Your task to perform on an android device: Google the capital of Canada Image 0: 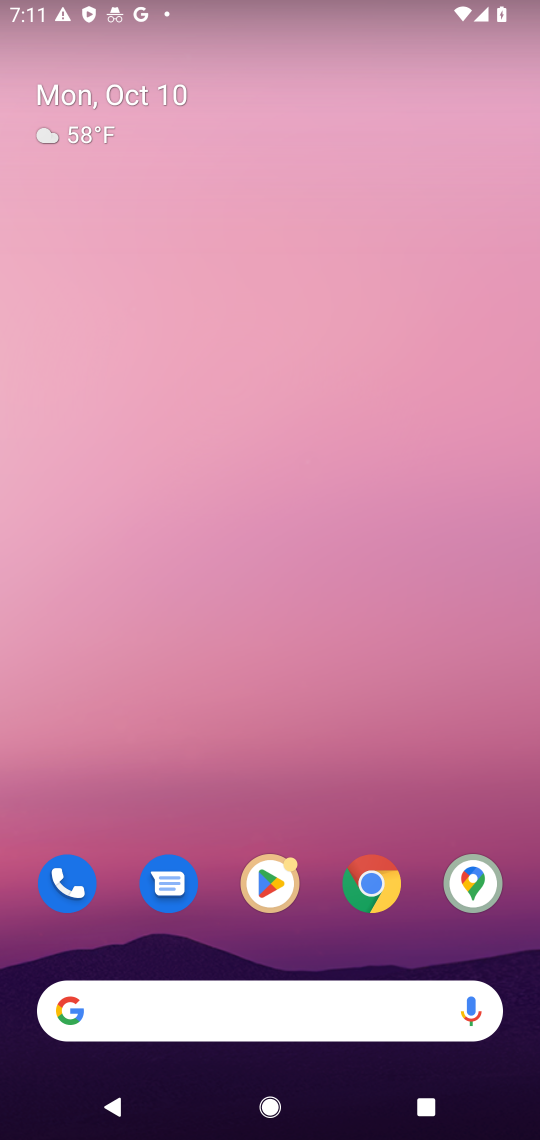
Step 0: drag from (355, 1012) to (402, 411)
Your task to perform on an android device: Google the capital of Canada Image 1: 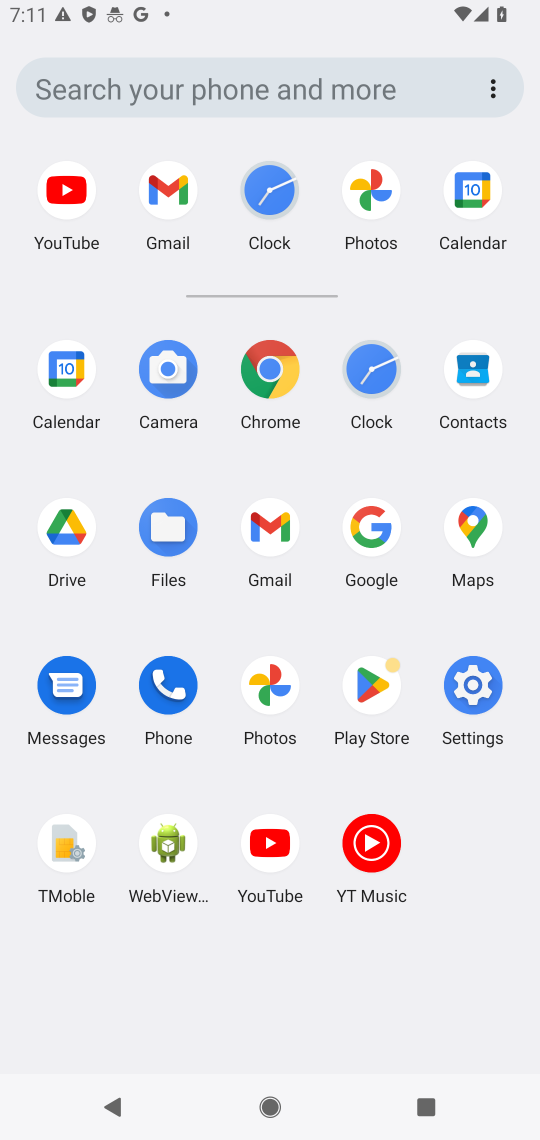
Step 1: click (374, 551)
Your task to perform on an android device: Google the capital of Canada Image 2: 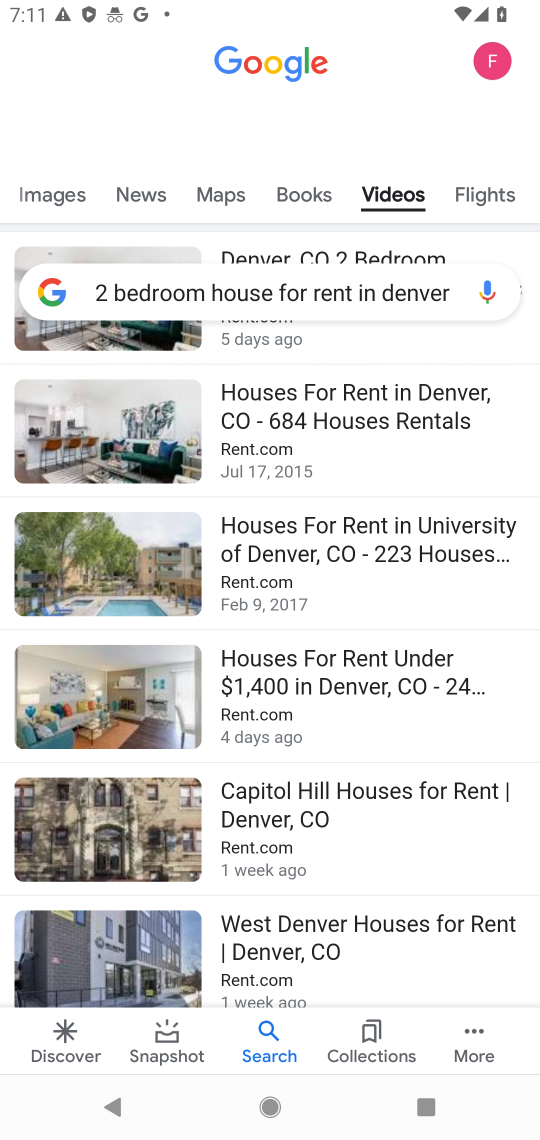
Step 2: drag from (48, 199) to (524, 246)
Your task to perform on an android device: Google the capital of Canada Image 3: 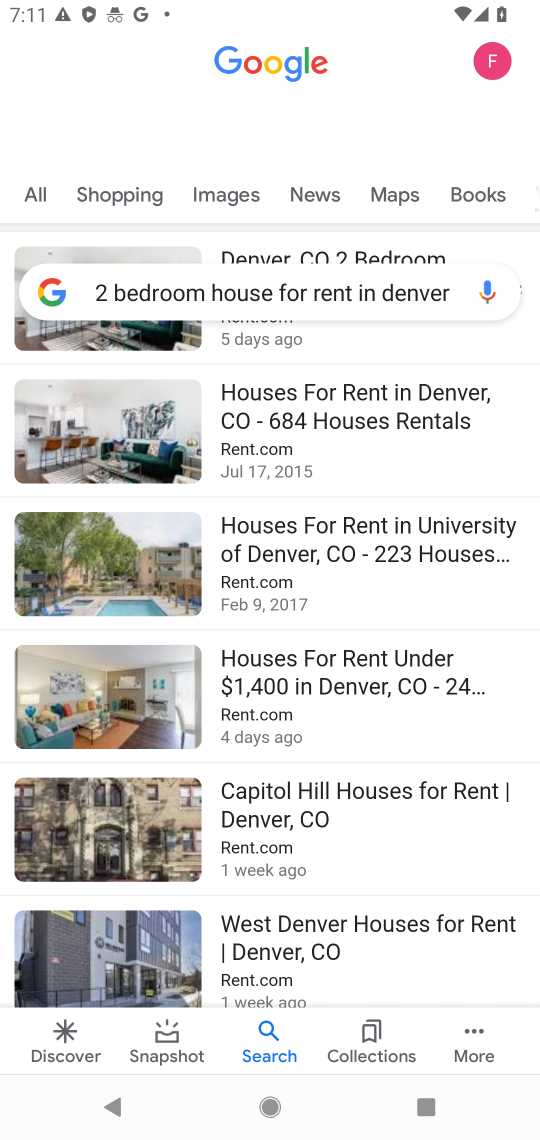
Step 3: click (45, 187)
Your task to perform on an android device: Google the capital of Canada Image 4: 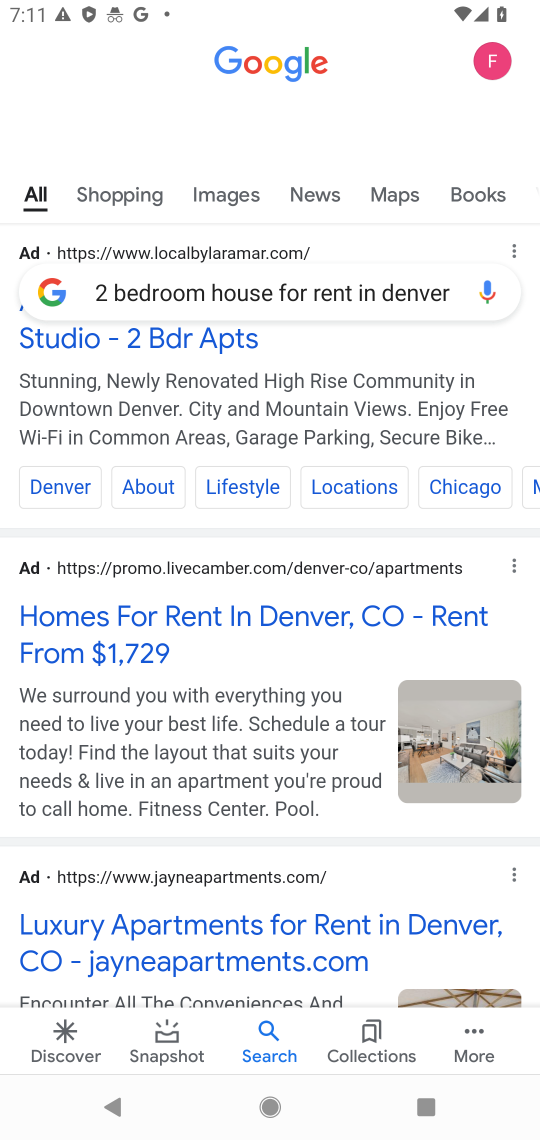
Step 4: click (285, 284)
Your task to perform on an android device: Google the capital of Canada Image 5: 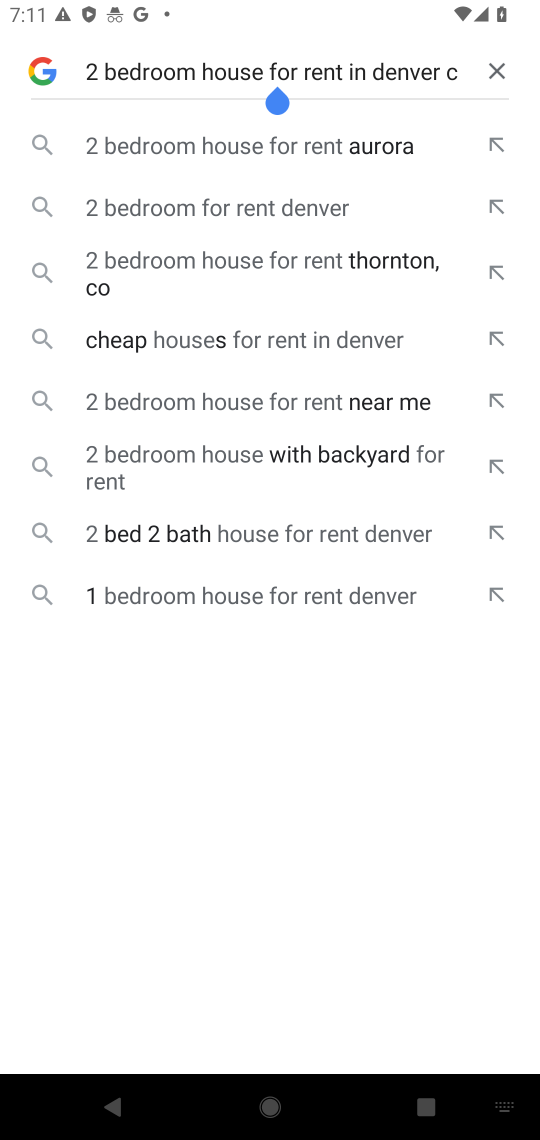
Step 5: click (497, 70)
Your task to perform on an android device: Google the capital of Canada Image 6: 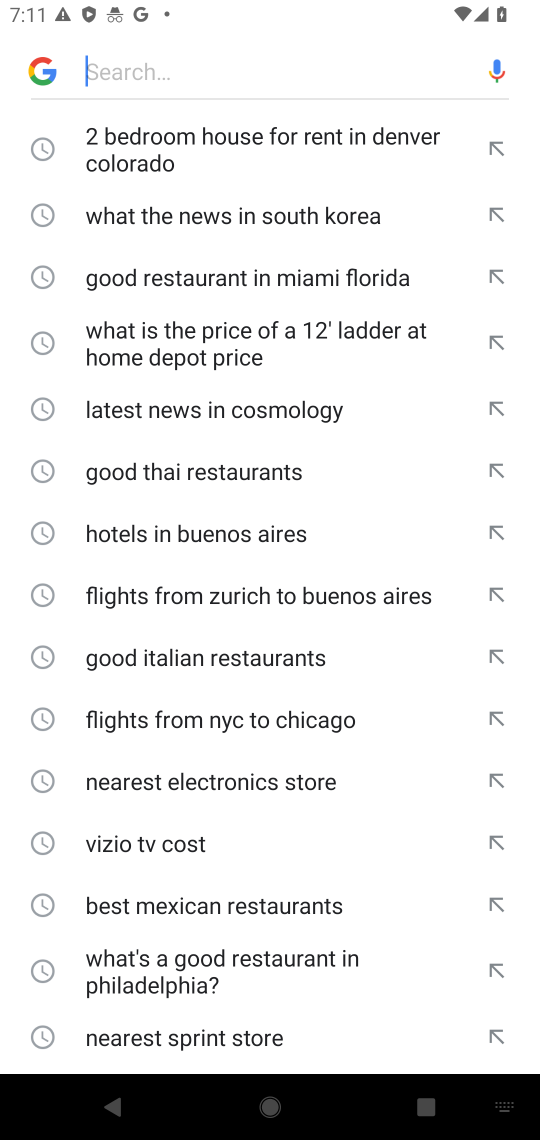
Step 6: type "capital of Canada"
Your task to perform on an android device: Google the capital of Canada Image 7: 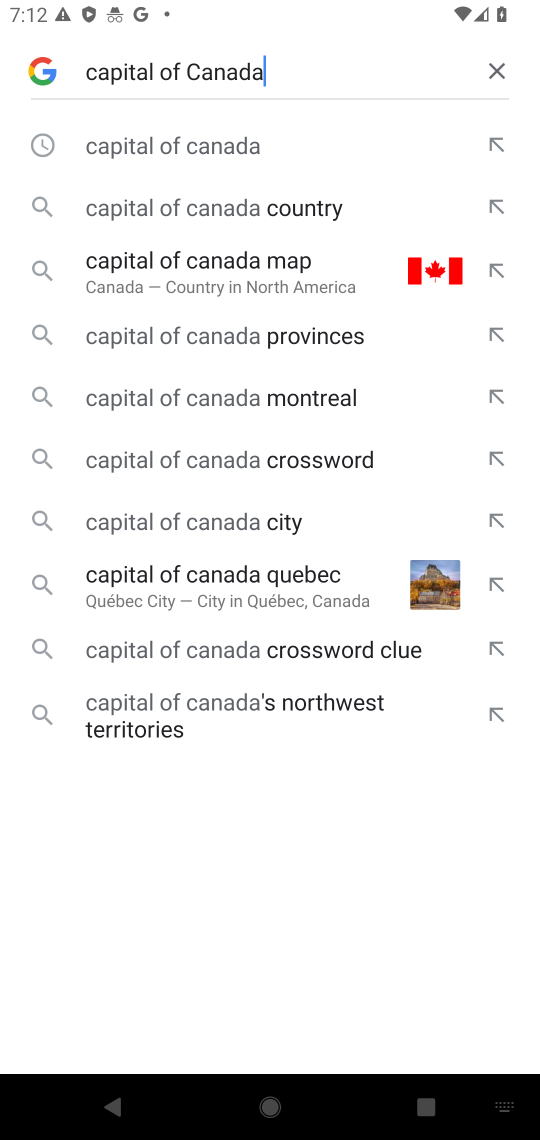
Step 7: click (218, 148)
Your task to perform on an android device: Google the capital of Canada Image 8: 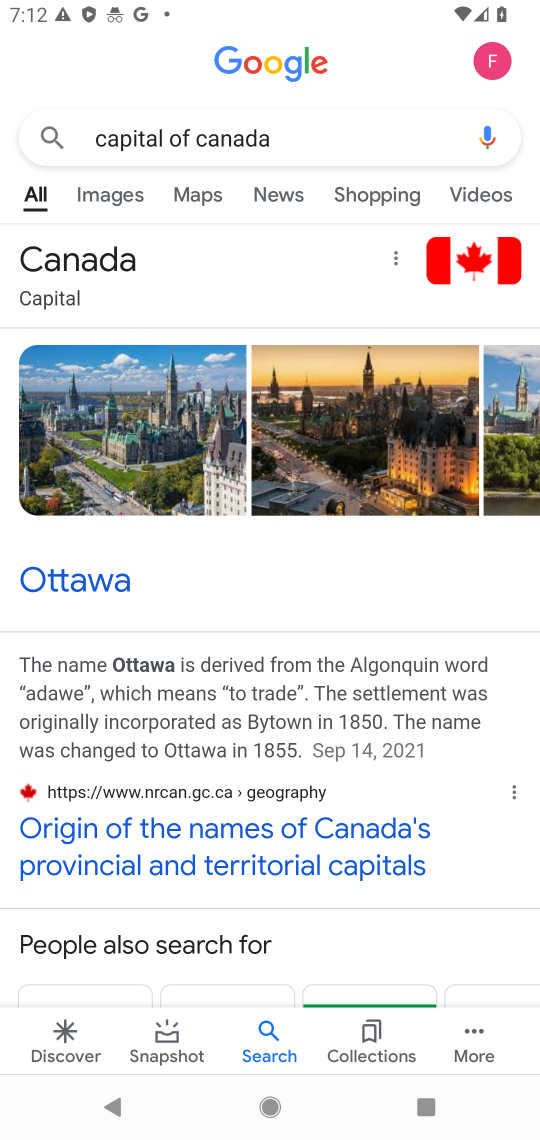
Step 8: task complete